Your task to perform on an android device: change notification settings in the gmail app Image 0: 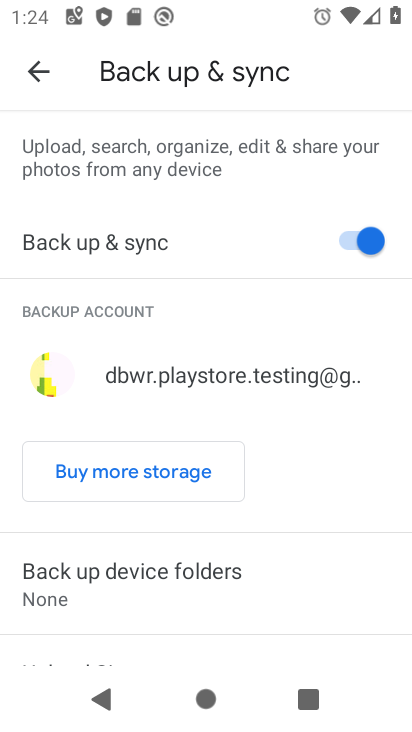
Step 0: press home button
Your task to perform on an android device: change notification settings in the gmail app Image 1: 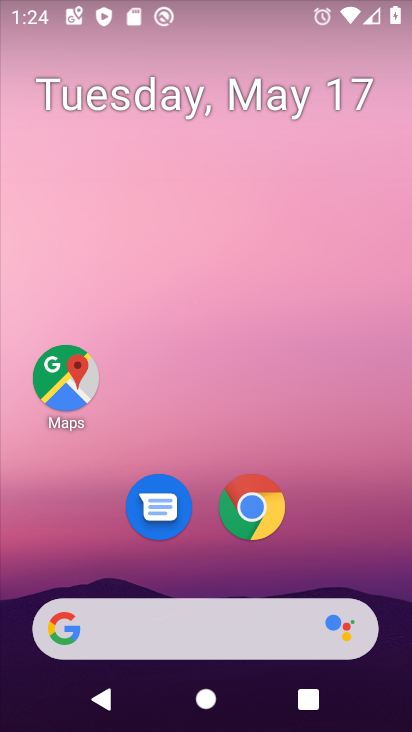
Step 1: drag from (320, 509) to (343, 197)
Your task to perform on an android device: change notification settings in the gmail app Image 2: 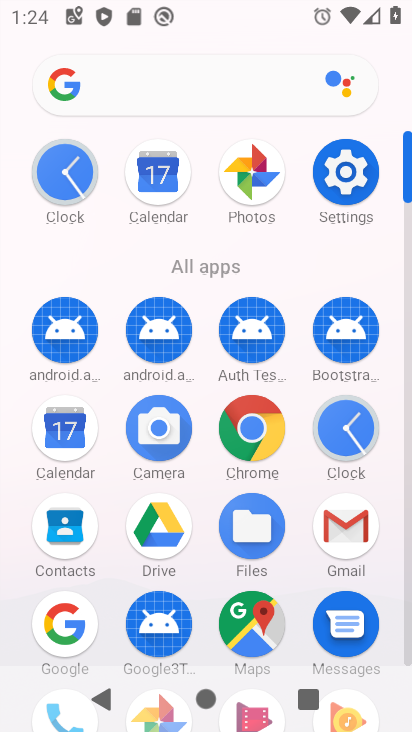
Step 2: click (328, 167)
Your task to perform on an android device: change notification settings in the gmail app Image 3: 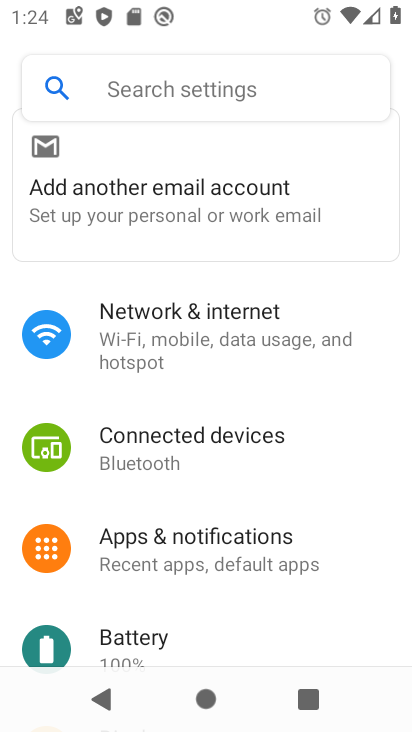
Step 3: press home button
Your task to perform on an android device: change notification settings in the gmail app Image 4: 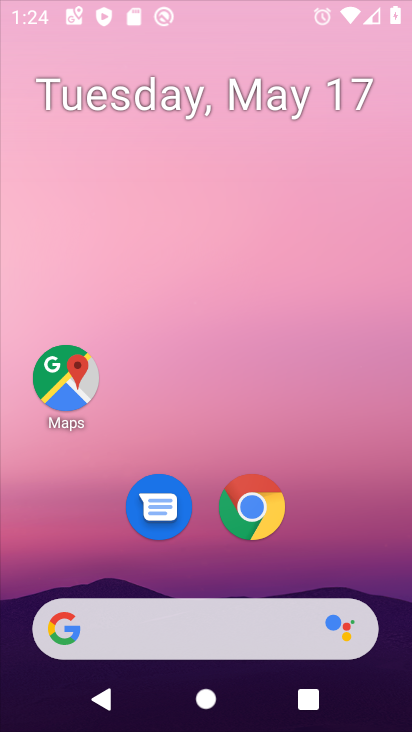
Step 4: drag from (259, 577) to (283, 215)
Your task to perform on an android device: change notification settings in the gmail app Image 5: 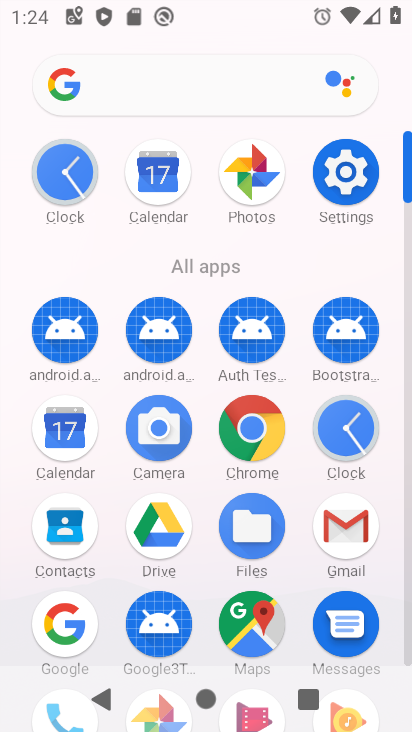
Step 5: drag from (201, 608) to (258, 348)
Your task to perform on an android device: change notification settings in the gmail app Image 6: 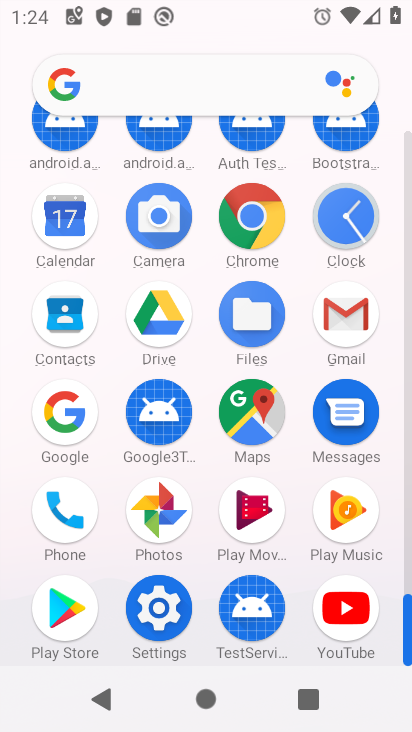
Step 6: drag from (196, 239) to (201, 481)
Your task to perform on an android device: change notification settings in the gmail app Image 7: 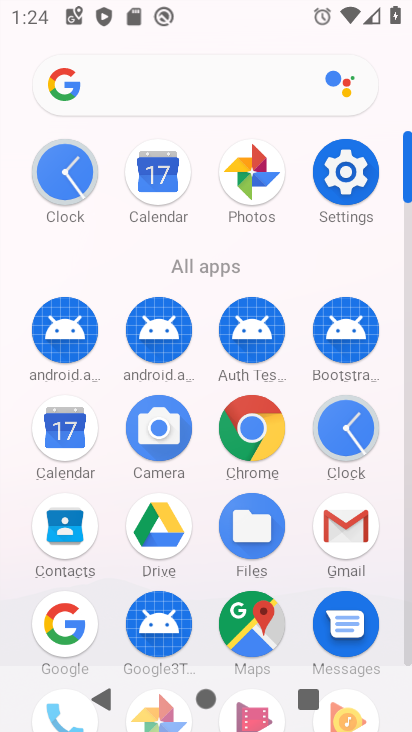
Step 7: click (347, 514)
Your task to perform on an android device: change notification settings in the gmail app Image 8: 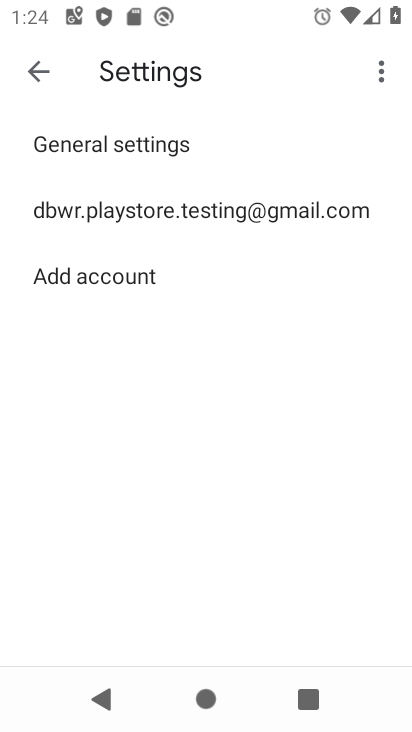
Step 8: click (206, 198)
Your task to perform on an android device: change notification settings in the gmail app Image 9: 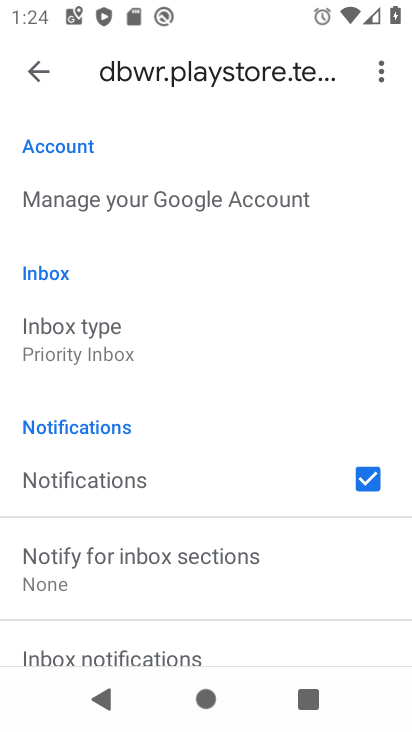
Step 9: click (123, 483)
Your task to perform on an android device: change notification settings in the gmail app Image 10: 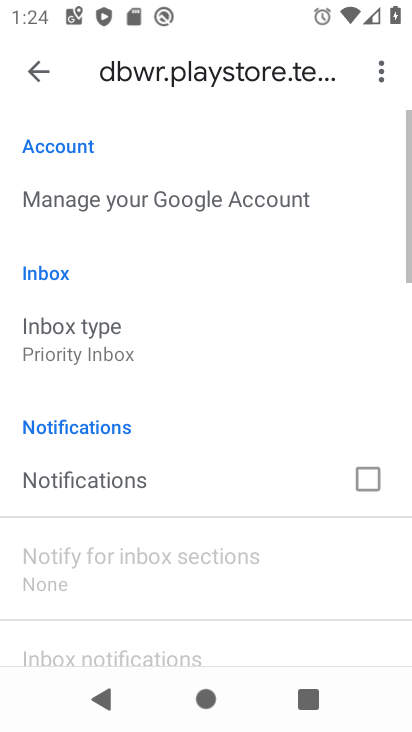
Step 10: click (122, 462)
Your task to perform on an android device: change notification settings in the gmail app Image 11: 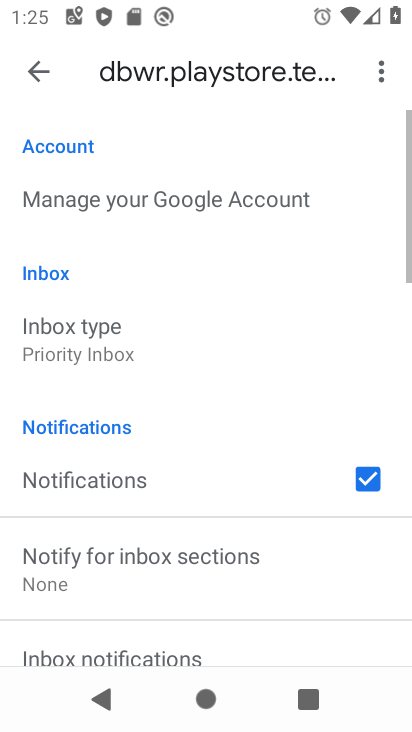
Step 11: drag from (263, 406) to (269, 242)
Your task to perform on an android device: change notification settings in the gmail app Image 12: 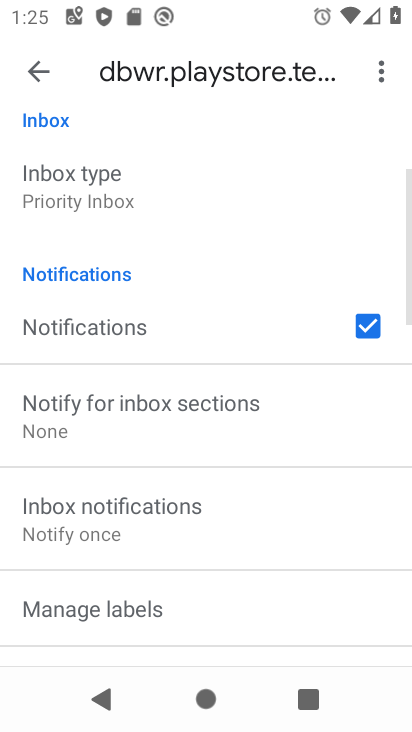
Step 12: drag from (216, 270) to (214, 613)
Your task to perform on an android device: change notification settings in the gmail app Image 13: 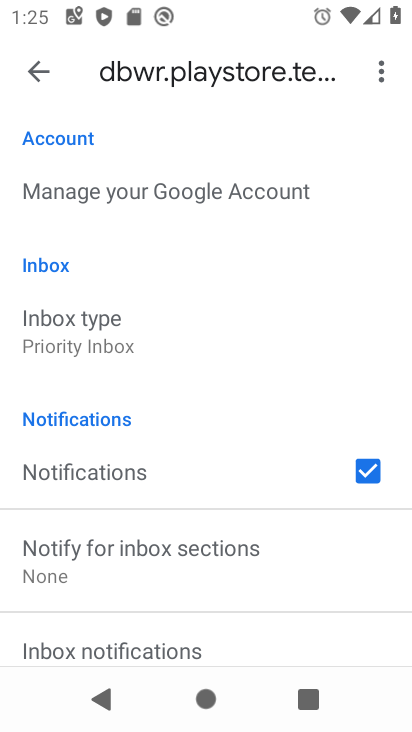
Step 13: click (142, 466)
Your task to perform on an android device: change notification settings in the gmail app Image 14: 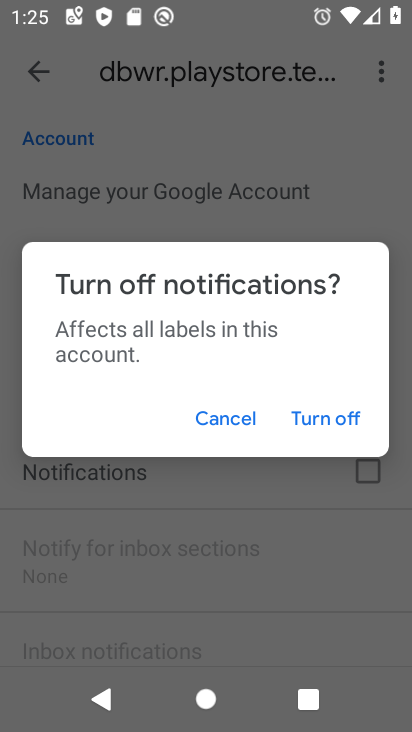
Step 14: task complete